Your task to perform on an android device: Go to sound settings Image 0: 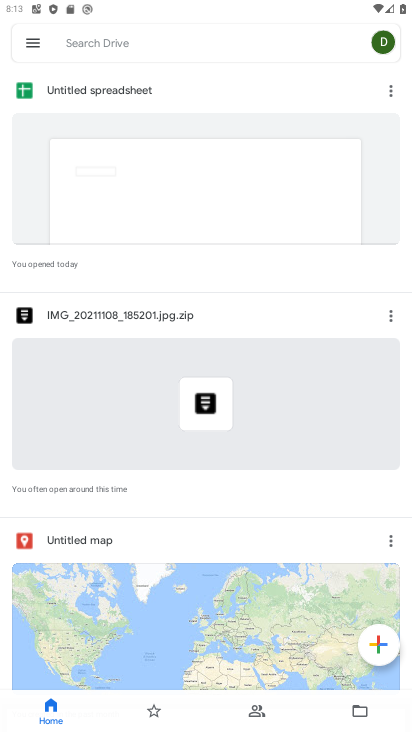
Step 0: press back button
Your task to perform on an android device: Go to sound settings Image 1: 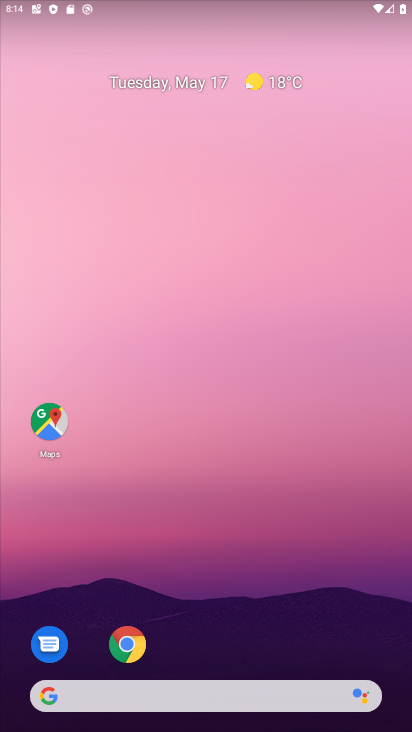
Step 1: drag from (224, 657) to (291, 151)
Your task to perform on an android device: Go to sound settings Image 2: 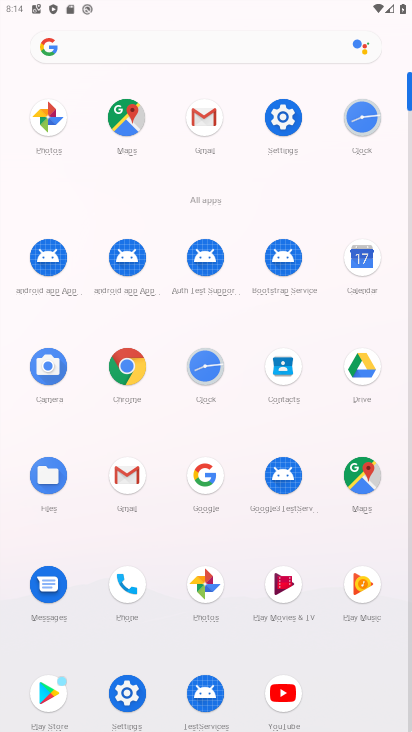
Step 2: click (262, 104)
Your task to perform on an android device: Go to sound settings Image 3: 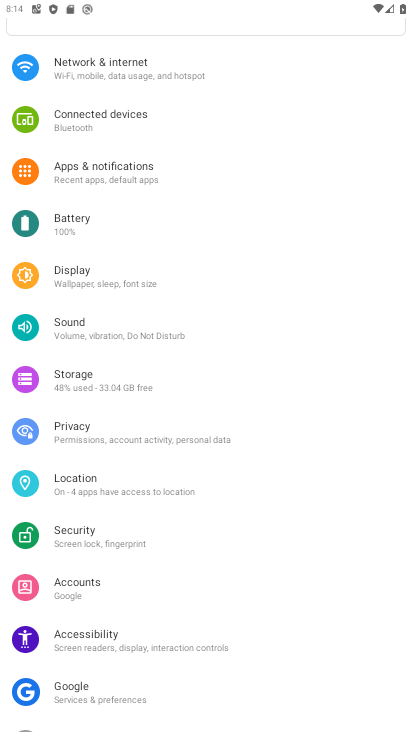
Step 3: click (85, 322)
Your task to perform on an android device: Go to sound settings Image 4: 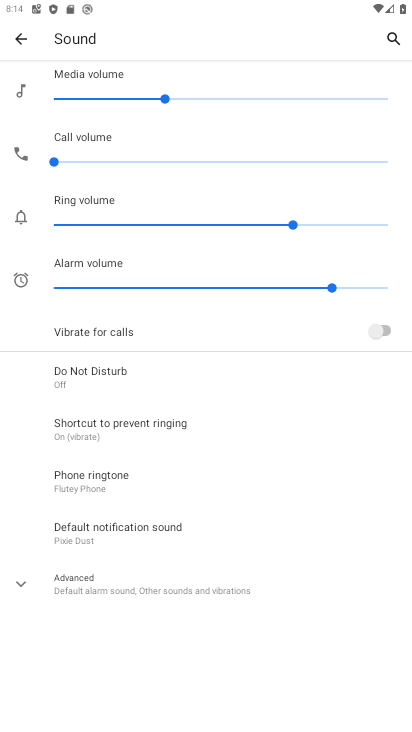
Step 4: task complete